Your task to perform on an android device: turn on javascript in the chrome app Image 0: 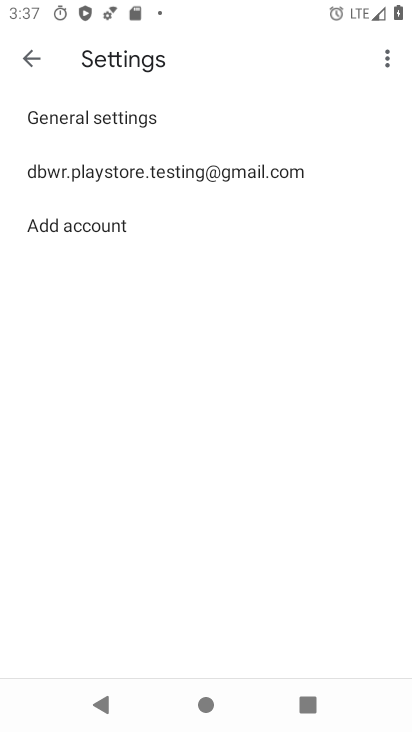
Step 0: press home button
Your task to perform on an android device: turn on javascript in the chrome app Image 1: 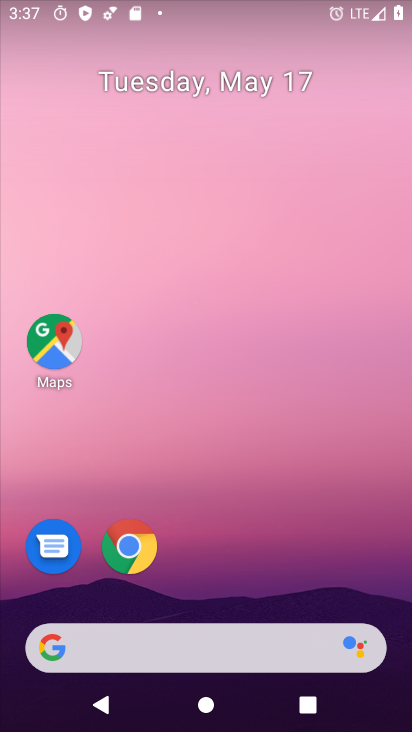
Step 1: click (136, 545)
Your task to perform on an android device: turn on javascript in the chrome app Image 2: 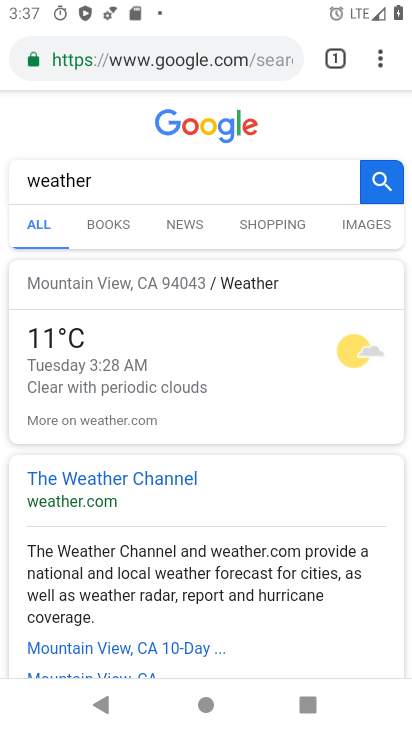
Step 2: drag from (380, 55) to (238, 583)
Your task to perform on an android device: turn on javascript in the chrome app Image 3: 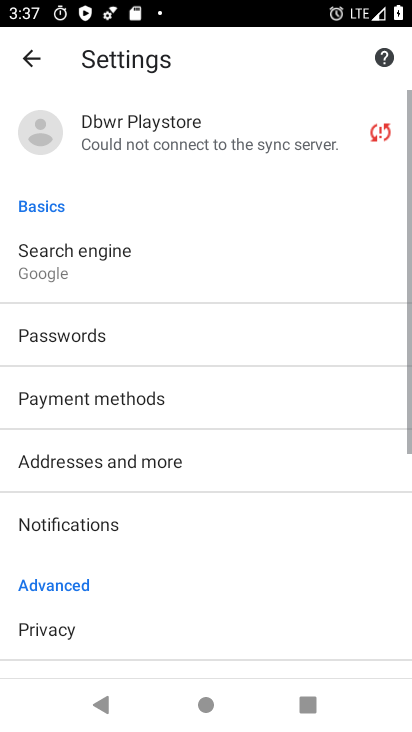
Step 3: drag from (181, 572) to (216, 183)
Your task to perform on an android device: turn on javascript in the chrome app Image 4: 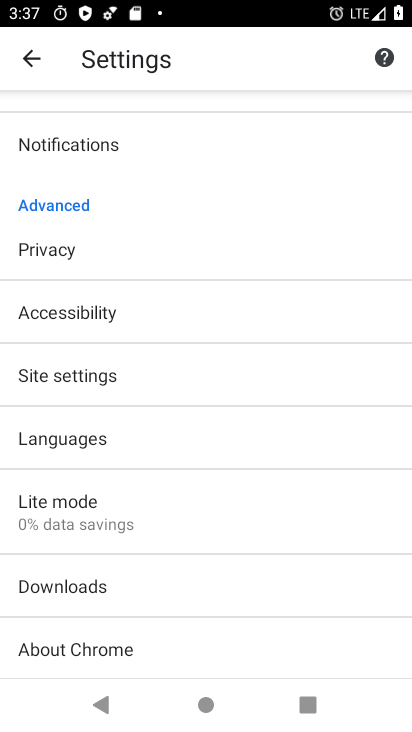
Step 4: click (202, 379)
Your task to perform on an android device: turn on javascript in the chrome app Image 5: 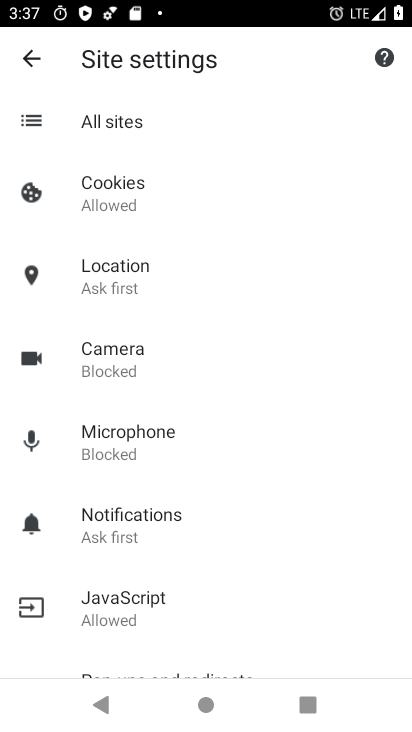
Step 5: click (165, 606)
Your task to perform on an android device: turn on javascript in the chrome app Image 6: 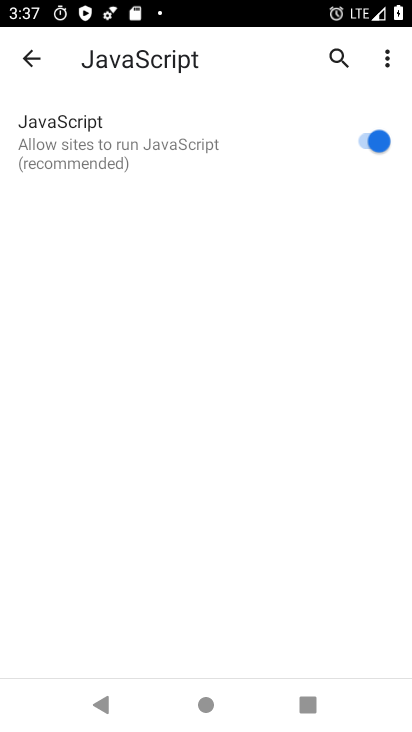
Step 6: task complete